Your task to perform on an android device: delete browsing data in the chrome app Image 0: 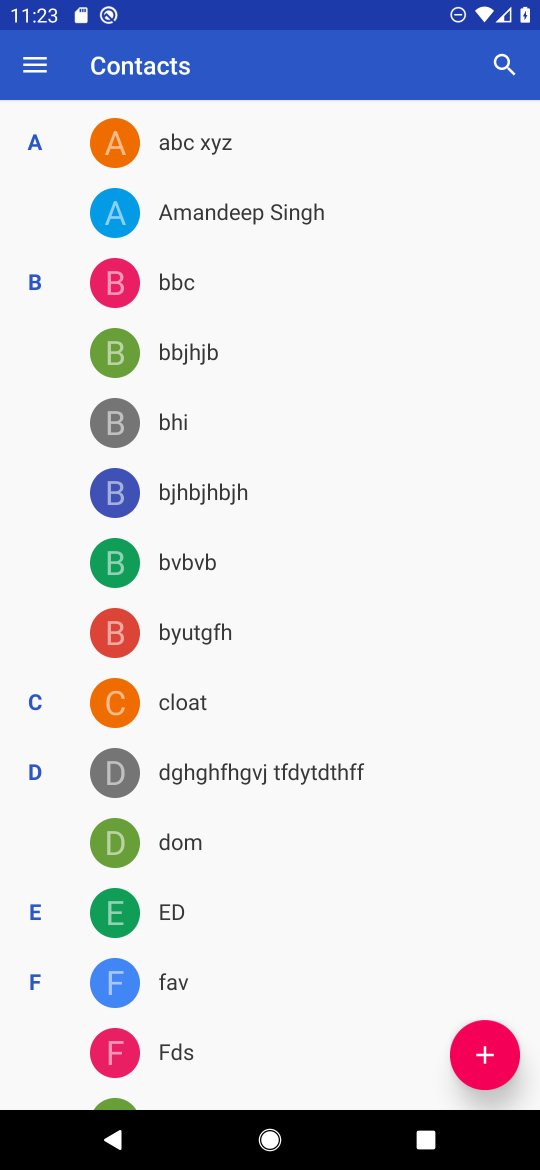
Step 0: press home button
Your task to perform on an android device: delete browsing data in the chrome app Image 1: 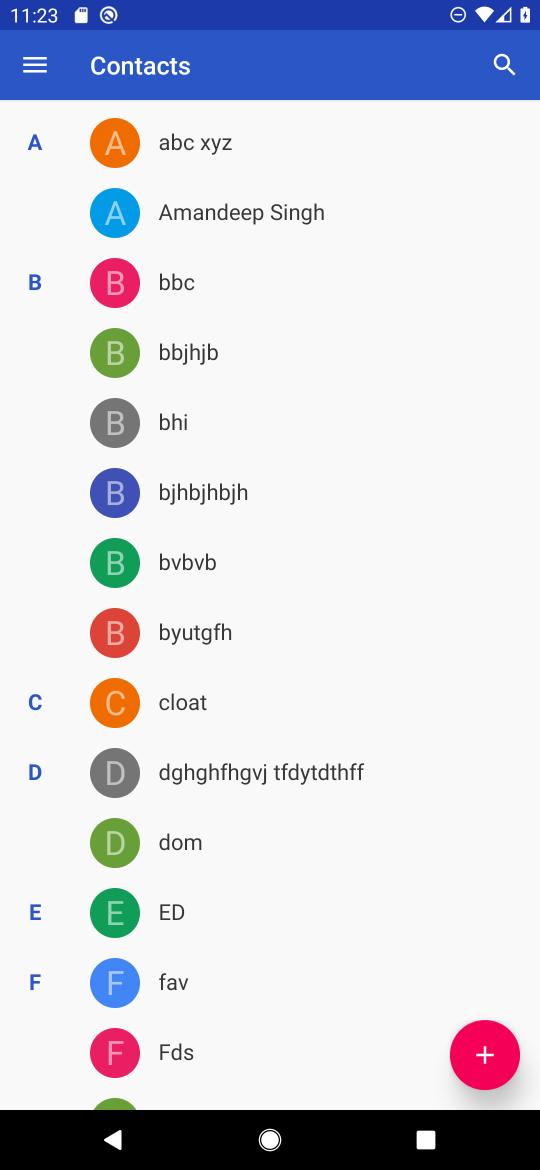
Step 1: press home button
Your task to perform on an android device: delete browsing data in the chrome app Image 2: 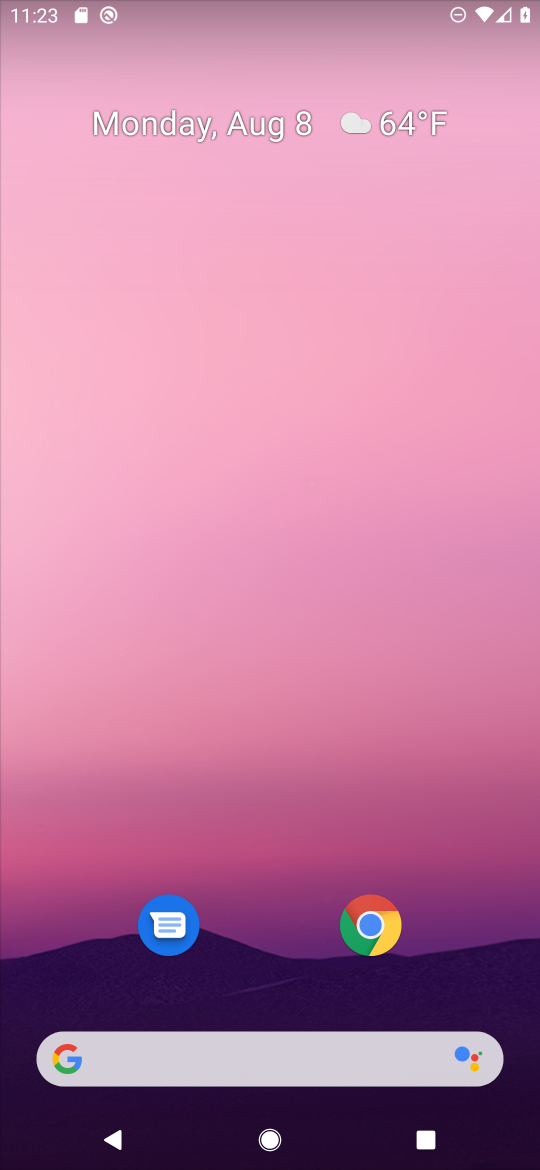
Step 2: drag from (250, 920) to (384, 111)
Your task to perform on an android device: delete browsing data in the chrome app Image 3: 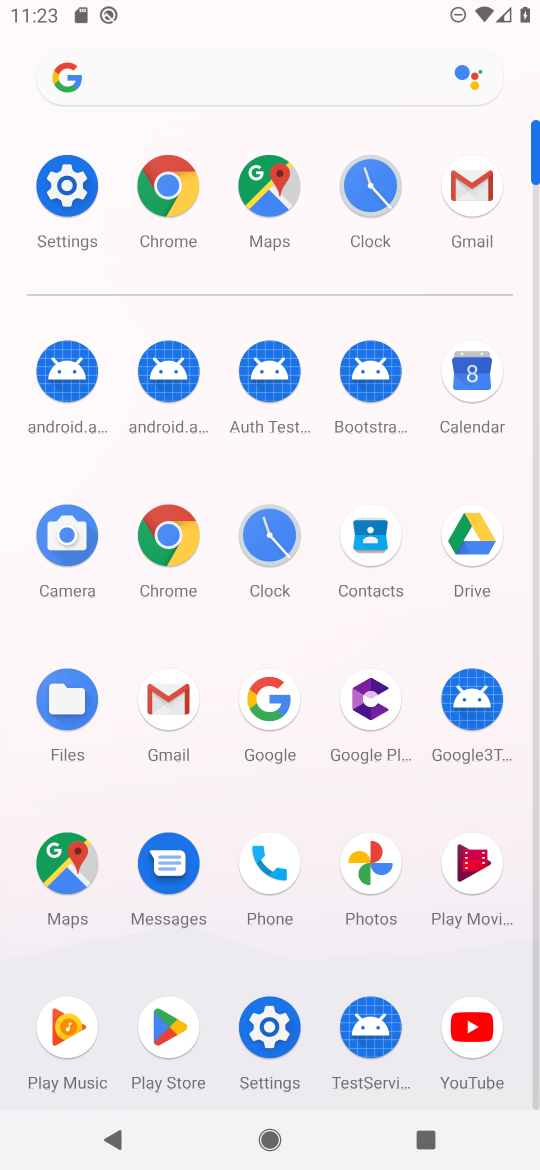
Step 3: click (173, 527)
Your task to perform on an android device: delete browsing data in the chrome app Image 4: 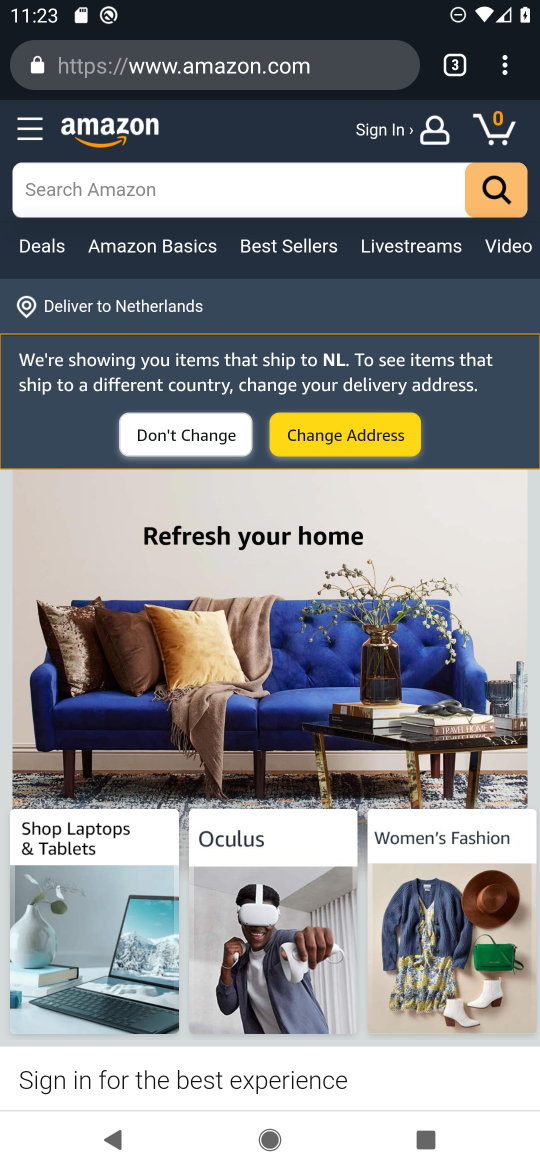
Step 4: task complete